Your task to perform on an android device: install app "Truecaller" Image 0: 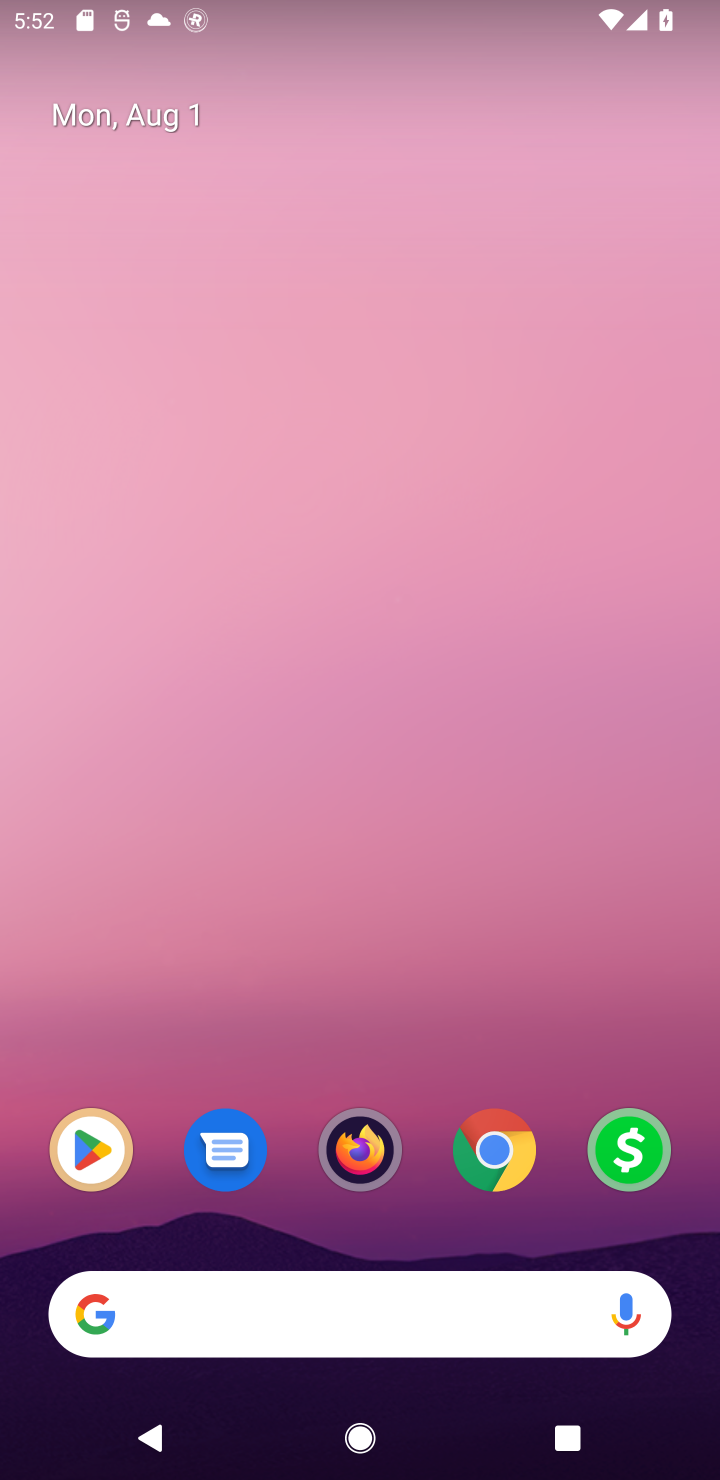
Step 0: drag from (395, 1239) to (400, 97)
Your task to perform on an android device: install app "Truecaller" Image 1: 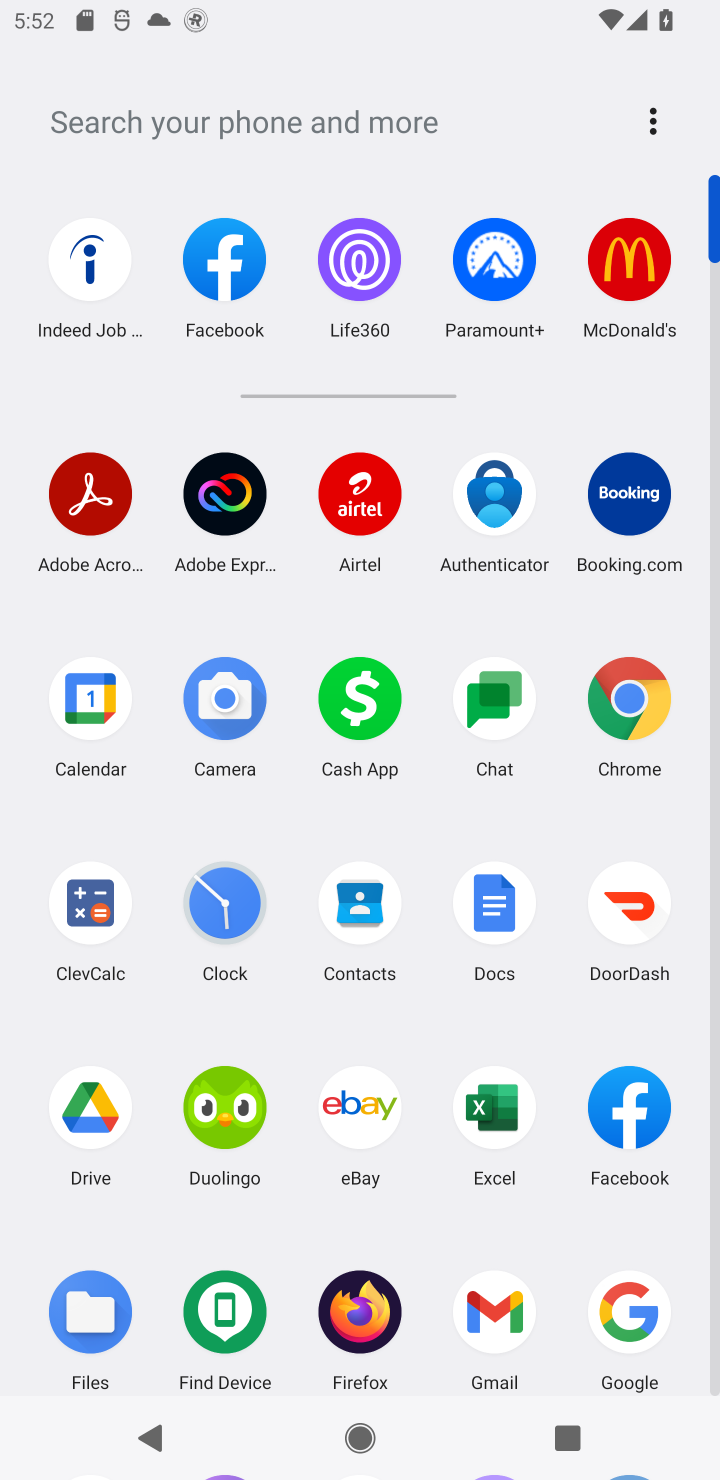
Step 1: drag from (387, 1226) to (345, 561)
Your task to perform on an android device: install app "Truecaller" Image 2: 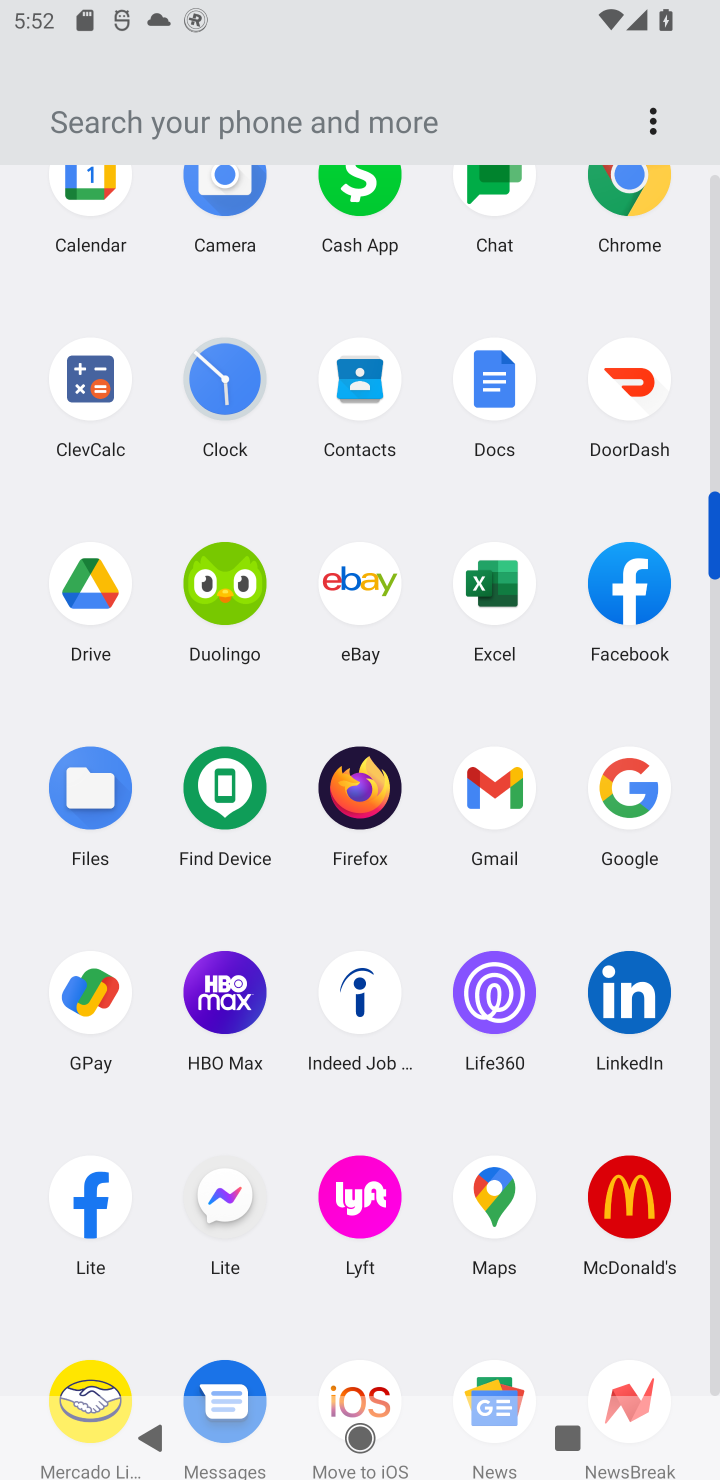
Step 2: drag from (452, 1287) to (396, 559)
Your task to perform on an android device: install app "Truecaller" Image 3: 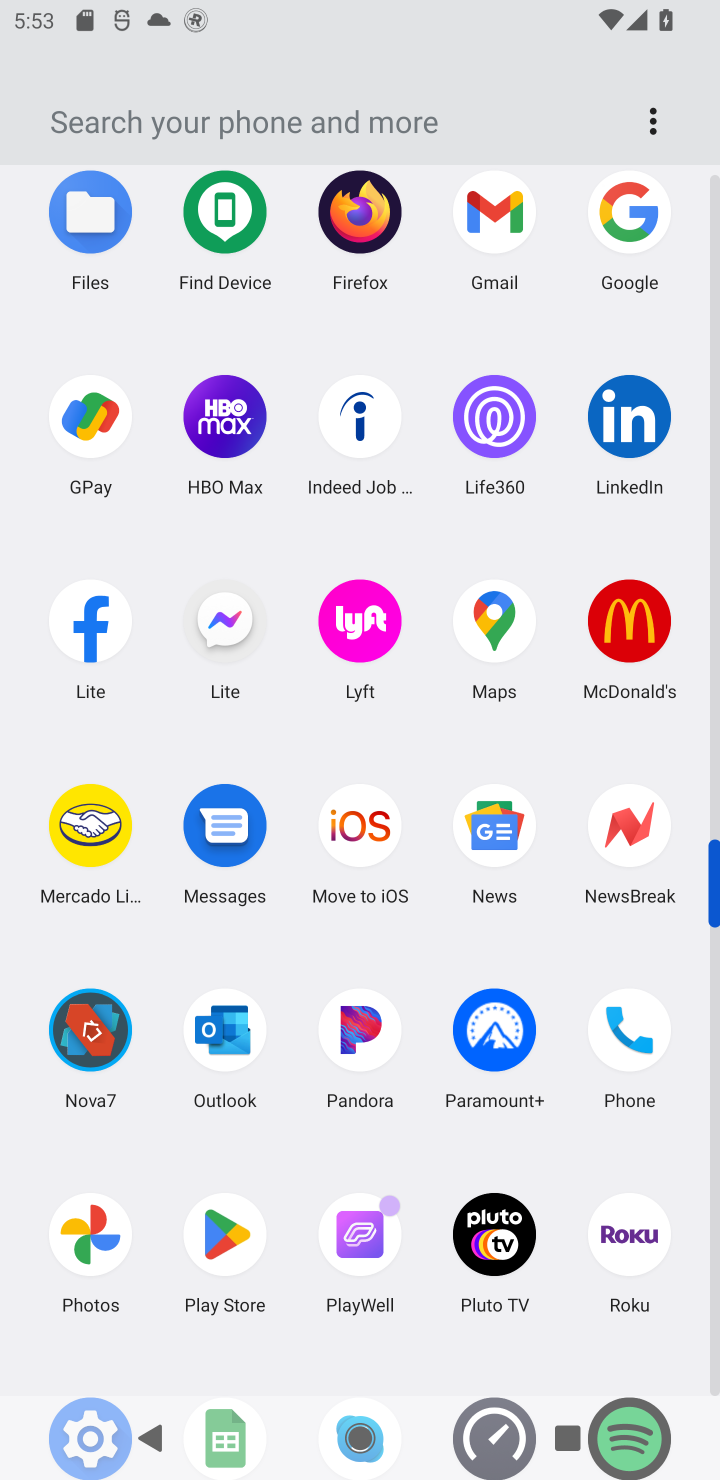
Step 3: drag from (313, 1364) to (269, 561)
Your task to perform on an android device: install app "Truecaller" Image 4: 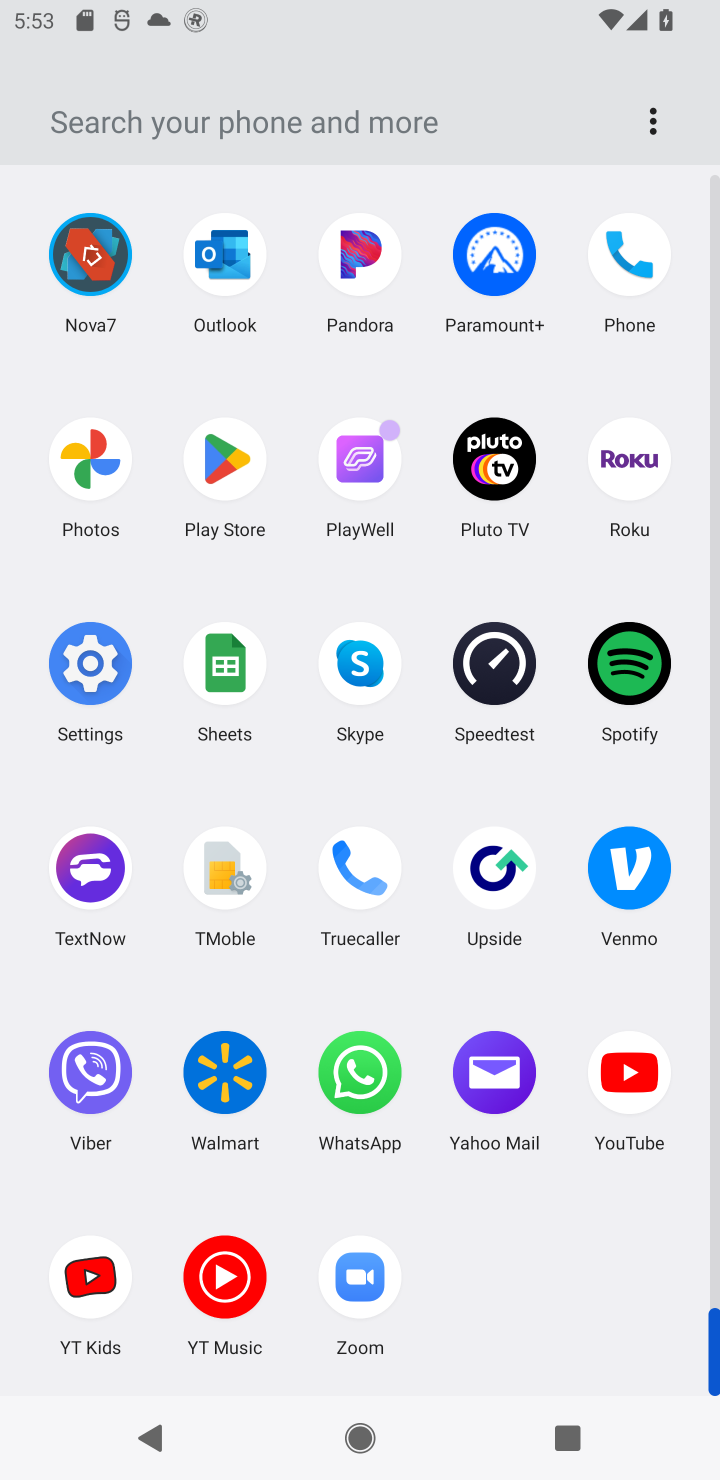
Step 4: click (384, 949)
Your task to perform on an android device: install app "Truecaller" Image 5: 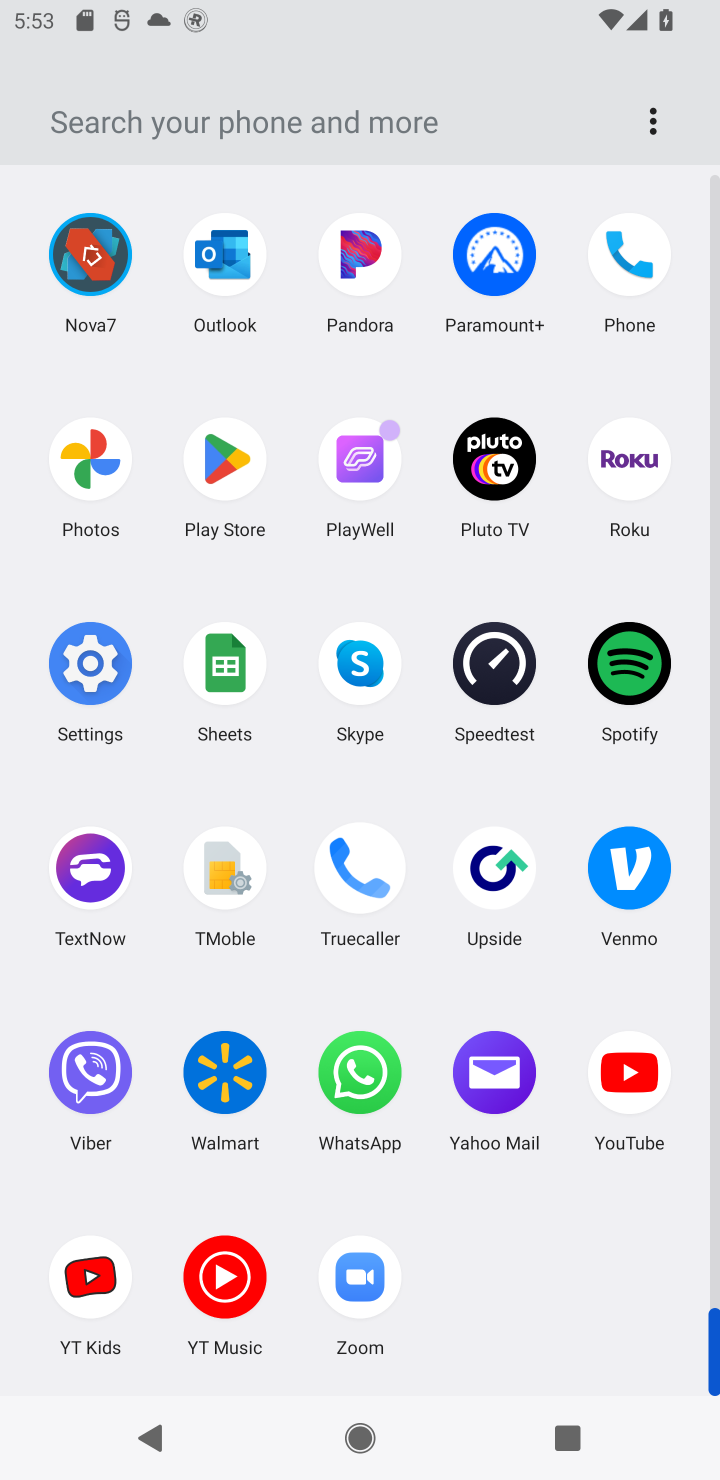
Step 5: task complete